Your task to perform on an android device: What's the news in Taiwan? Image 0: 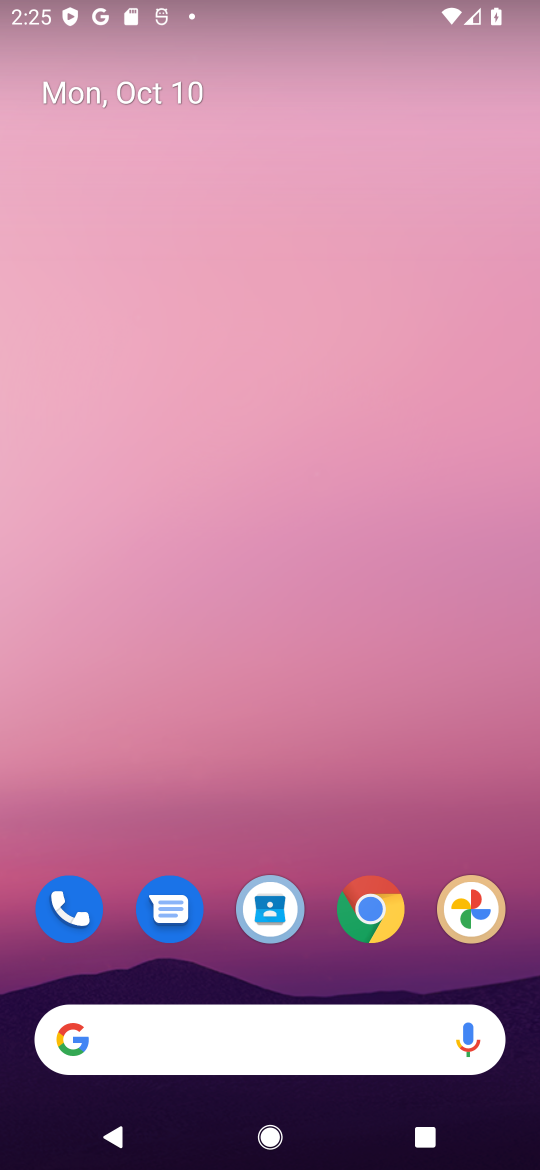
Step 0: click (372, 912)
Your task to perform on an android device: What's the news in Taiwan? Image 1: 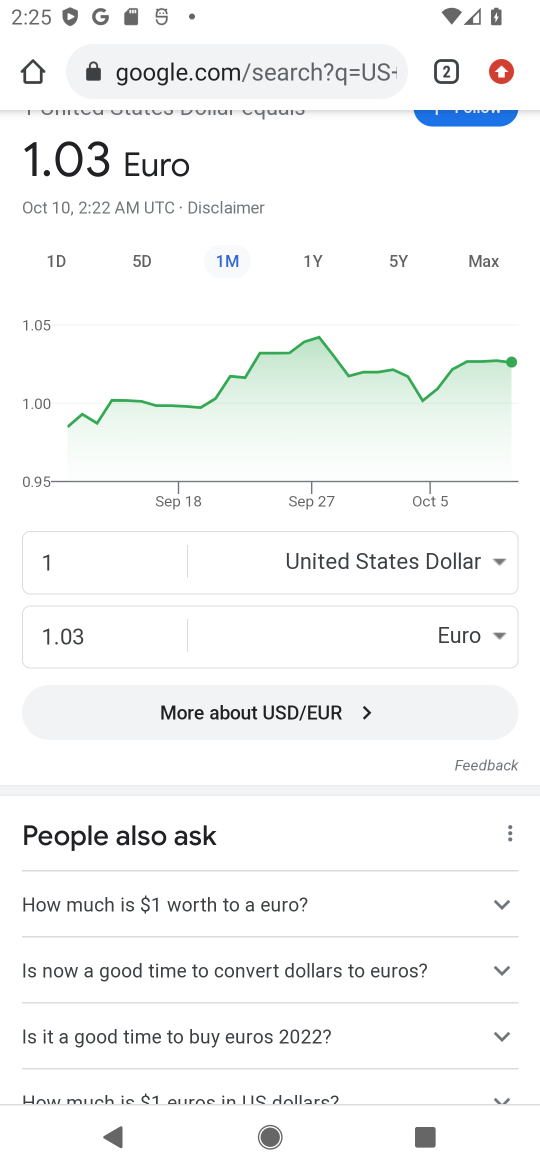
Step 1: click (252, 46)
Your task to perform on an android device: What's the news in Taiwan? Image 2: 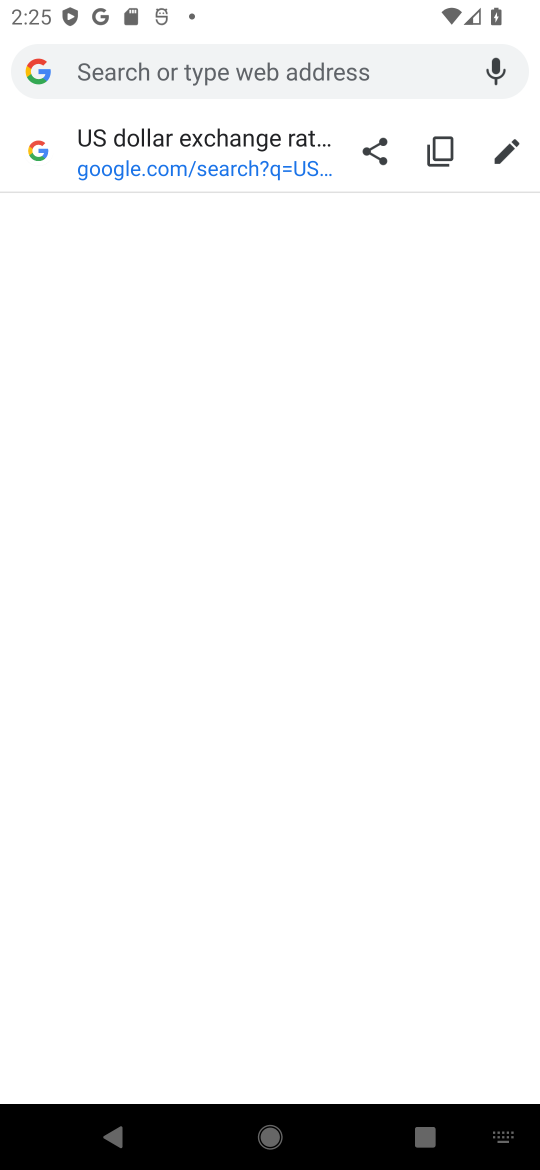
Step 2: type "news in Taiwan?"
Your task to perform on an android device: What's the news in Taiwan? Image 3: 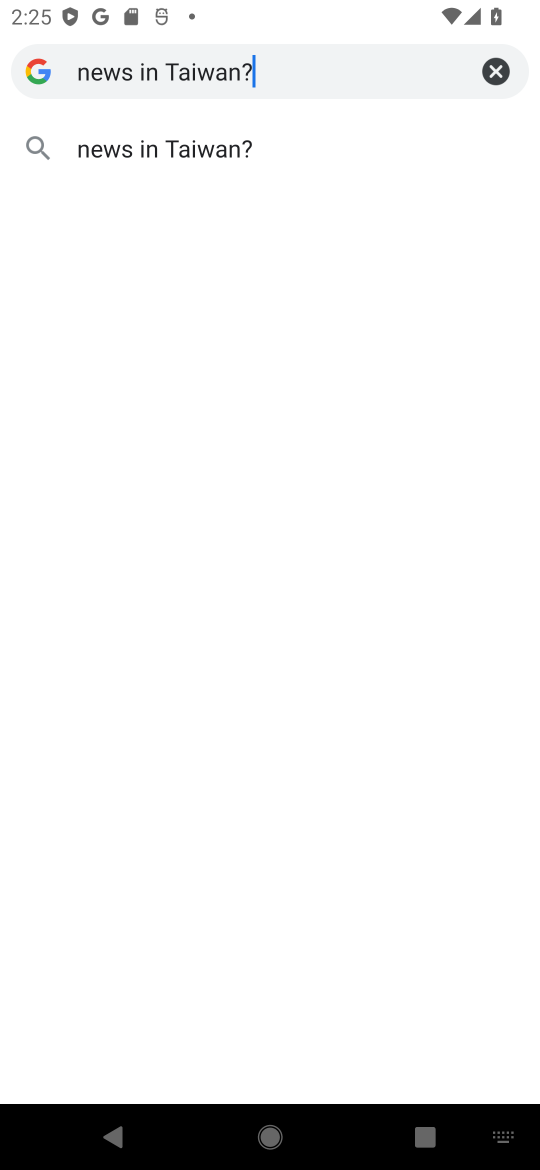
Step 3: click (144, 138)
Your task to perform on an android device: What's the news in Taiwan? Image 4: 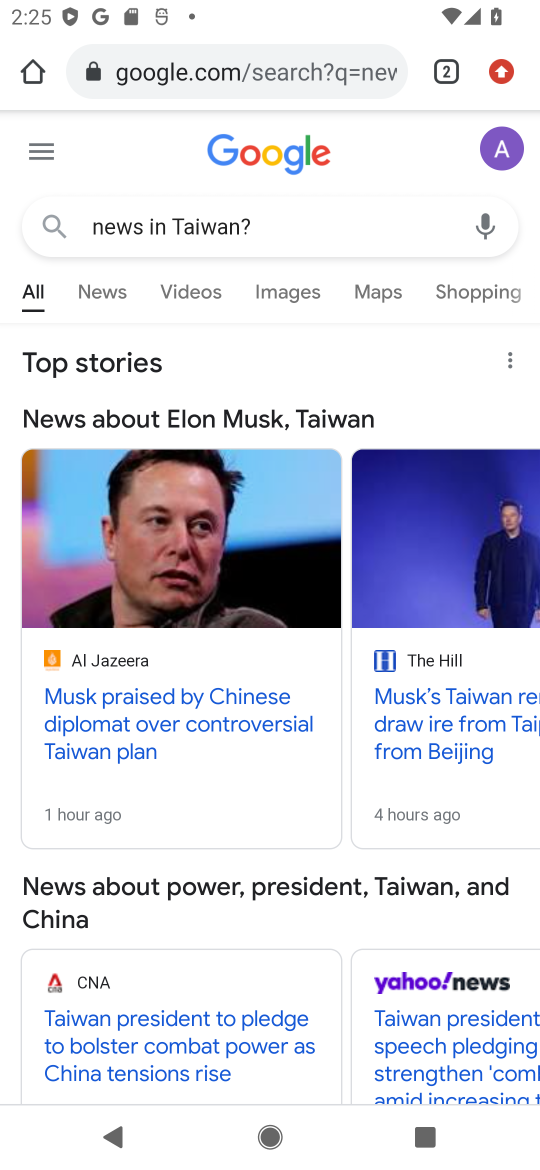
Step 4: drag from (294, 832) to (282, 337)
Your task to perform on an android device: What's the news in Taiwan? Image 5: 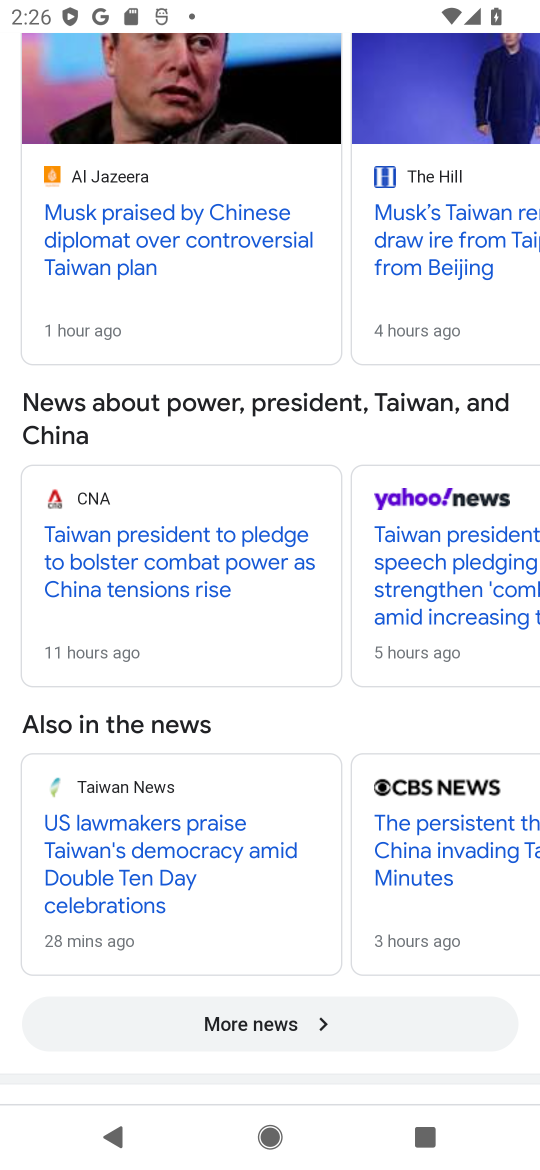
Step 5: click (139, 230)
Your task to perform on an android device: What's the news in Taiwan? Image 6: 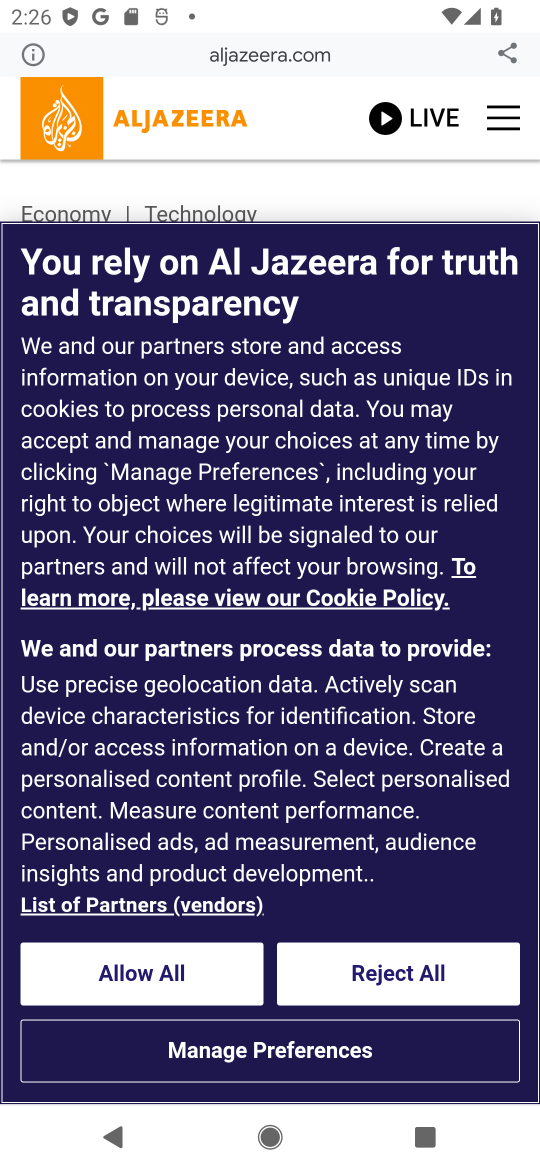
Step 6: click (123, 970)
Your task to perform on an android device: What's the news in Taiwan? Image 7: 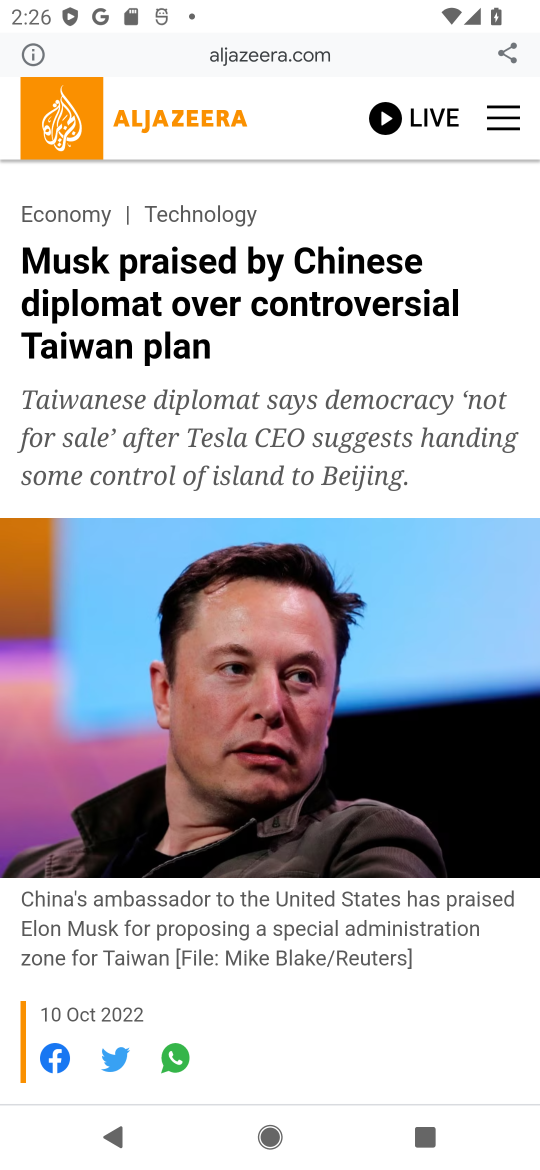
Step 7: task complete